Your task to perform on an android device: Open Google Chrome Image 0: 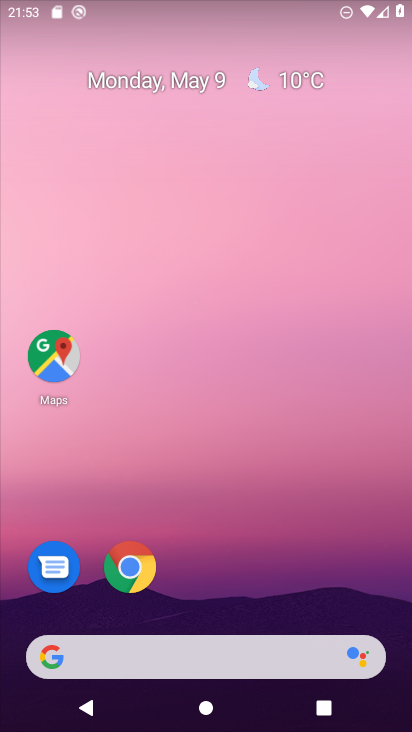
Step 0: click (134, 566)
Your task to perform on an android device: Open Google Chrome Image 1: 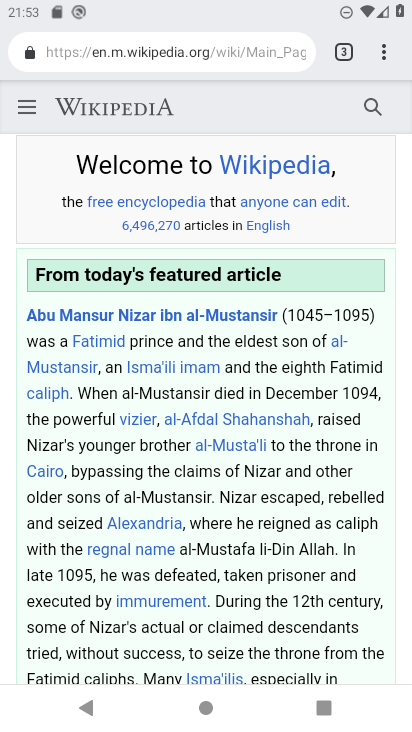
Step 1: task complete